Your task to perform on an android device: Go to Maps Image 0: 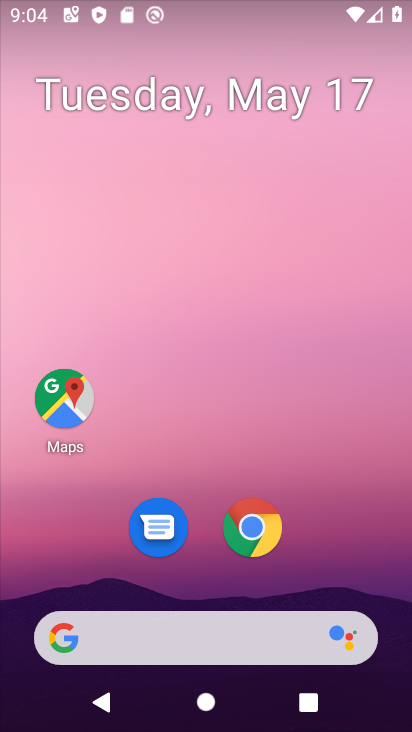
Step 0: press home button
Your task to perform on an android device: Go to Maps Image 1: 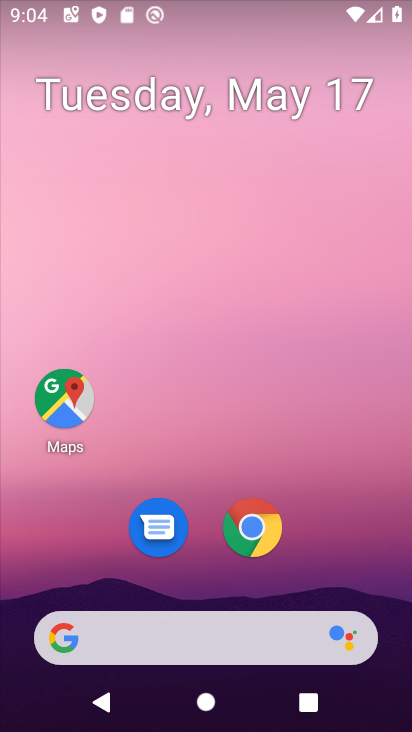
Step 1: click (53, 405)
Your task to perform on an android device: Go to Maps Image 2: 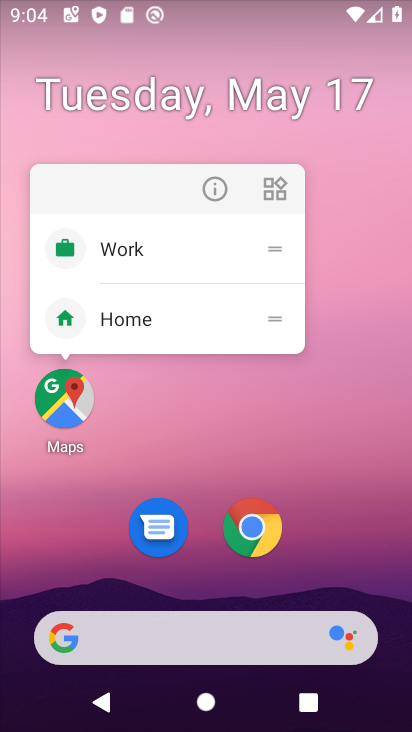
Step 2: click (64, 409)
Your task to perform on an android device: Go to Maps Image 3: 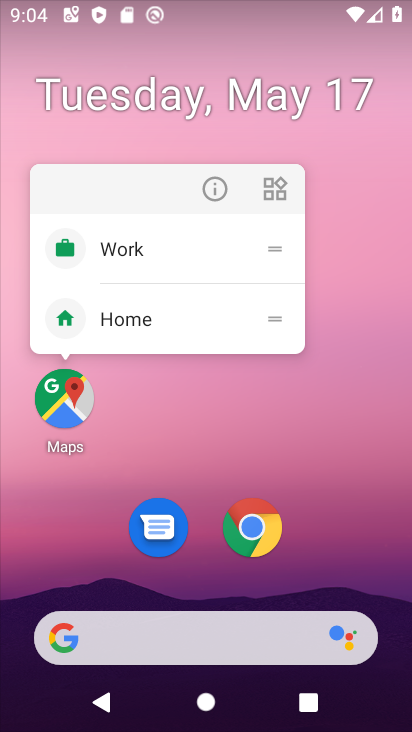
Step 3: click (70, 403)
Your task to perform on an android device: Go to Maps Image 4: 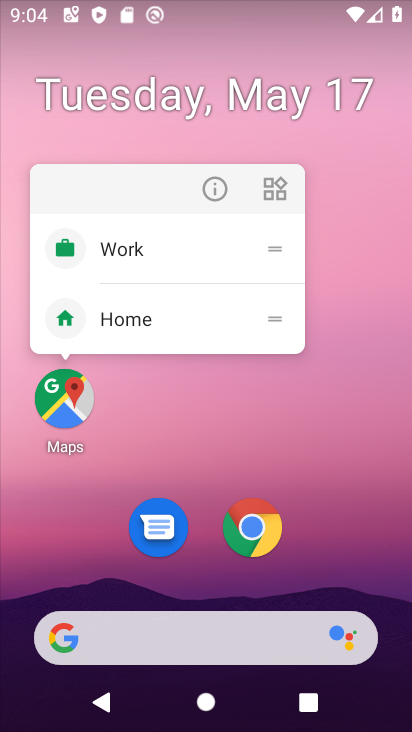
Step 4: click (62, 408)
Your task to perform on an android device: Go to Maps Image 5: 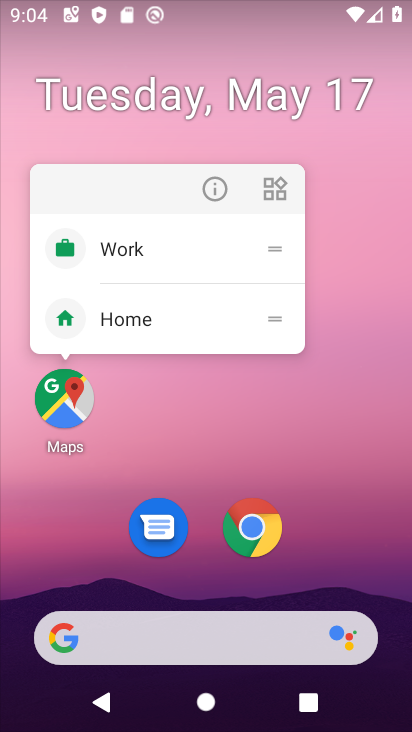
Step 5: click (62, 405)
Your task to perform on an android device: Go to Maps Image 6: 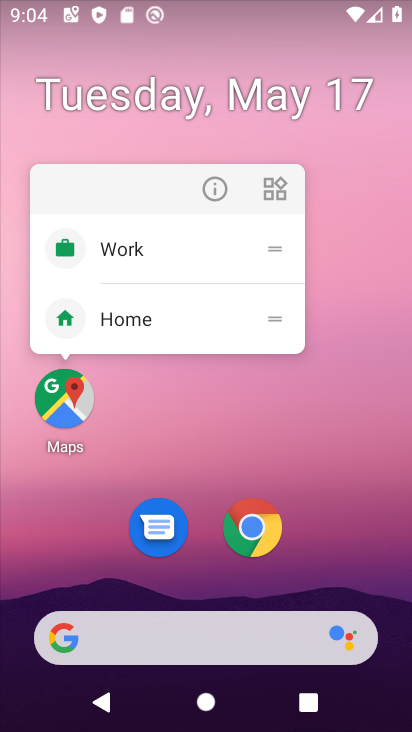
Step 6: click (62, 405)
Your task to perform on an android device: Go to Maps Image 7: 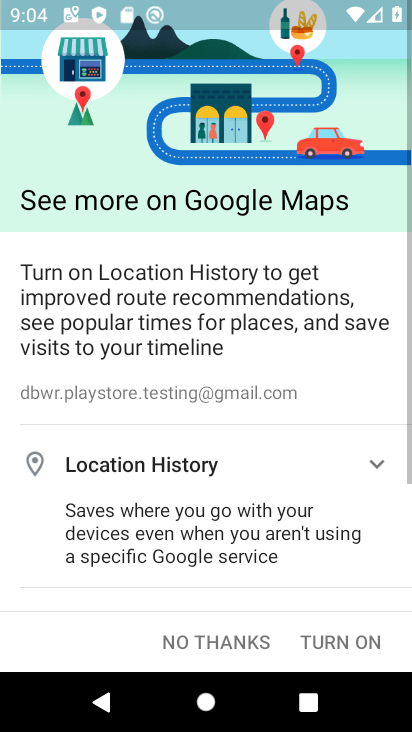
Step 7: click (232, 641)
Your task to perform on an android device: Go to Maps Image 8: 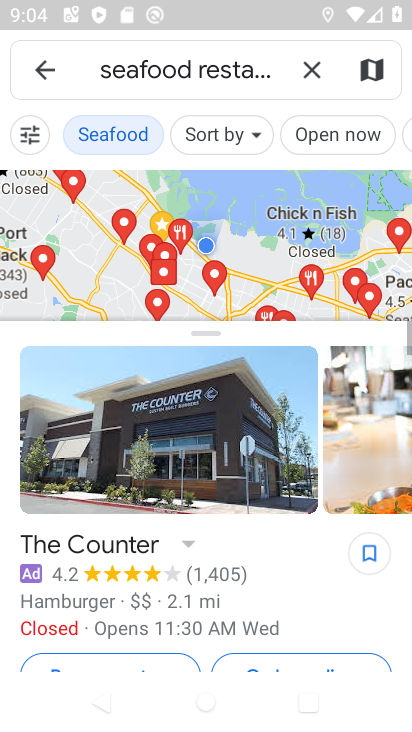
Step 8: click (42, 69)
Your task to perform on an android device: Go to Maps Image 9: 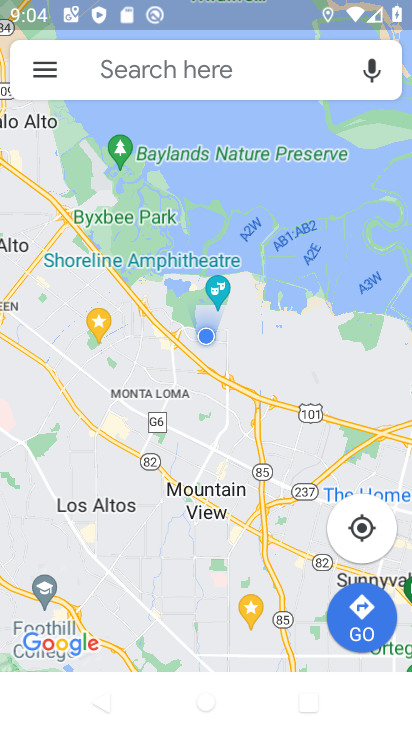
Step 9: task complete